Your task to perform on an android device: Open location settings Image 0: 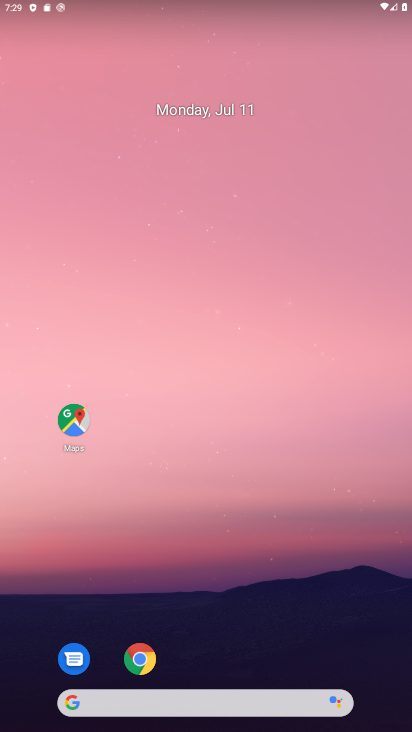
Step 0: drag from (276, 572) to (160, 16)
Your task to perform on an android device: Open location settings Image 1: 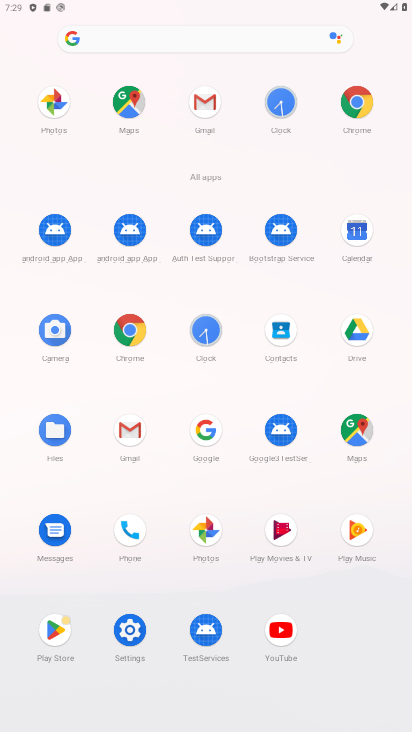
Step 1: click (122, 630)
Your task to perform on an android device: Open location settings Image 2: 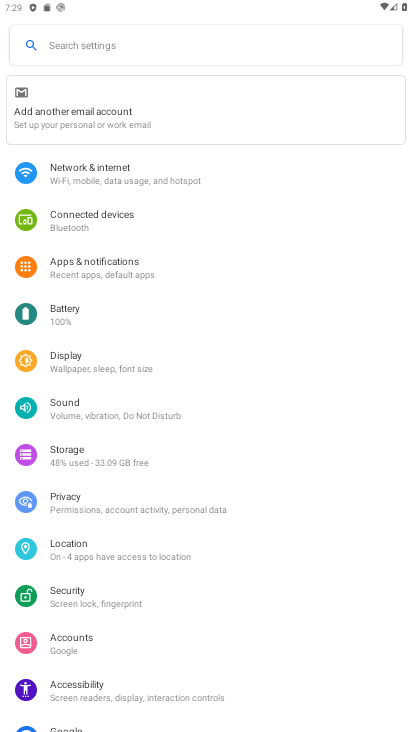
Step 2: click (162, 554)
Your task to perform on an android device: Open location settings Image 3: 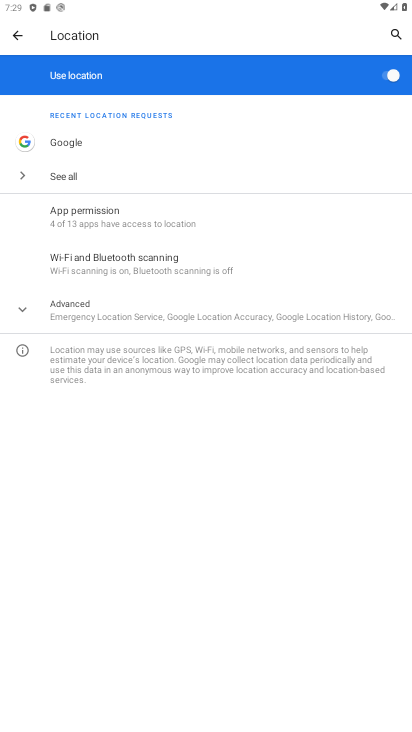
Step 3: task complete